Your task to perform on an android device: toggle improve location accuracy Image 0: 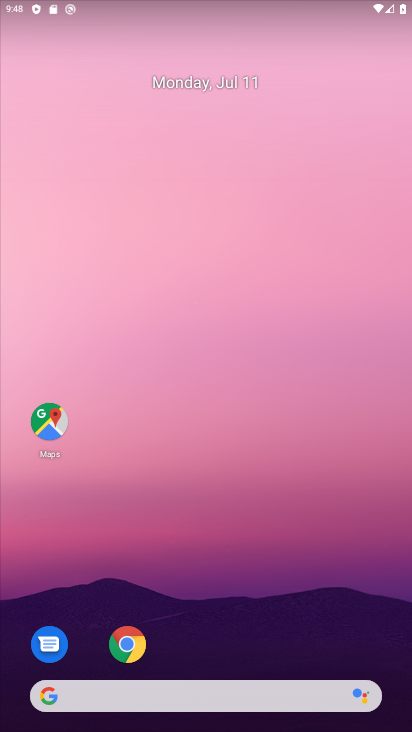
Step 0: drag from (269, 647) to (312, 94)
Your task to perform on an android device: toggle improve location accuracy Image 1: 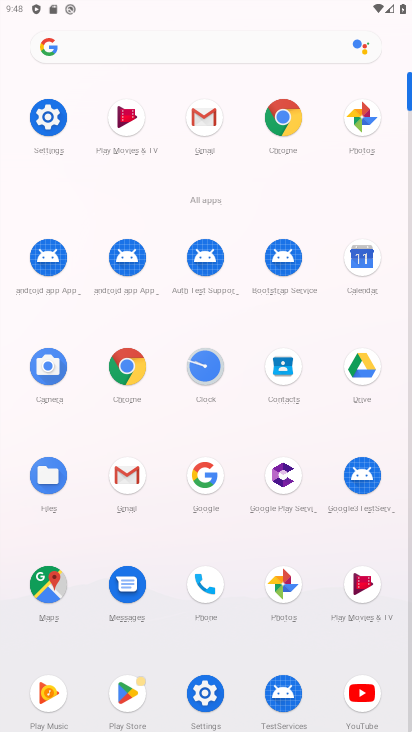
Step 1: click (45, 117)
Your task to perform on an android device: toggle improve location accuracy Image 2: 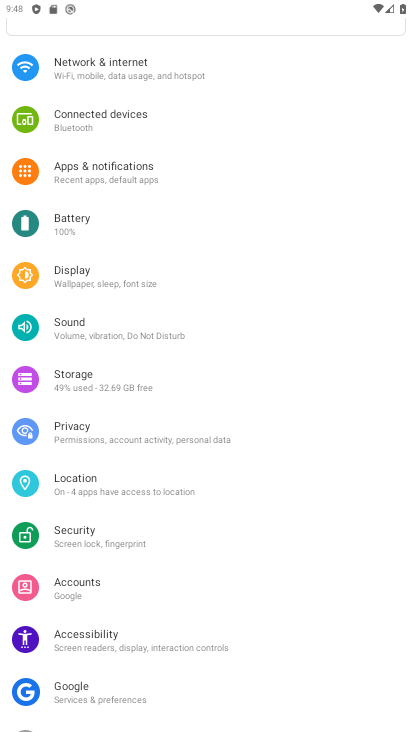
Step 2: click (101, 476)
Your task to perform on an android device: toggle improve location accuracy Image 3: 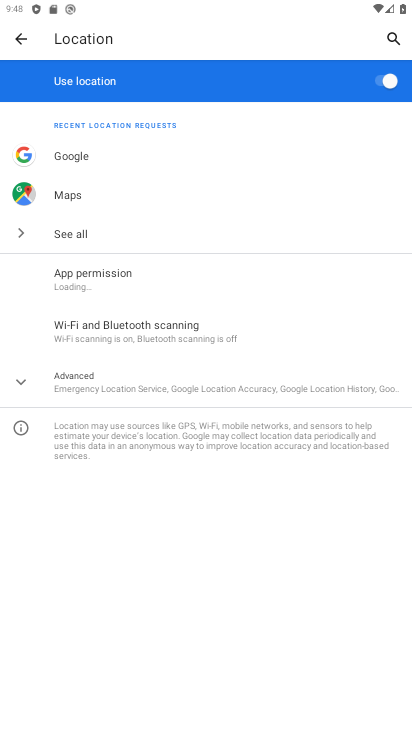
Step 3: click (144, 378)
Your task to perform on an android device: toggle improve location accuracy Image 4: 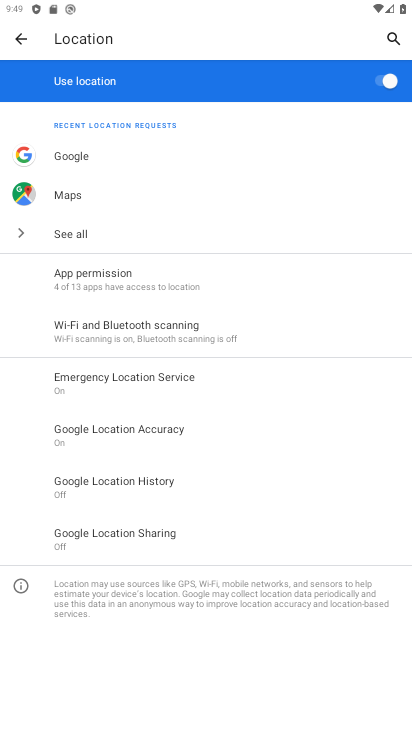
Step 4: click (152, 432)
Your task to perform on an android device: toggle improve location accuracy Image 5: 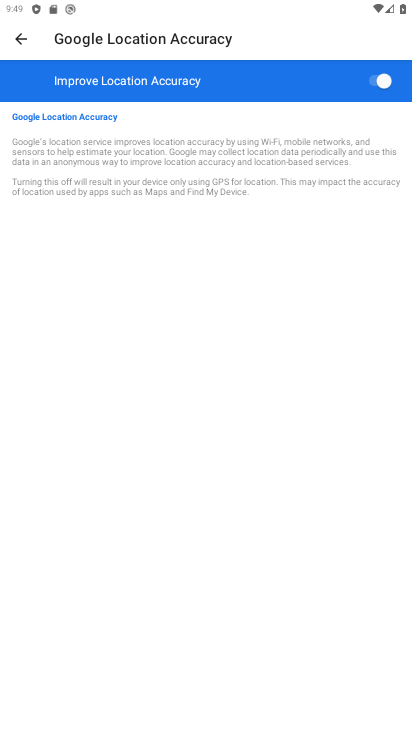
Step 5: click (379, 85)
Your task to perform on an android device: toggle improve location accuracy Image 6: 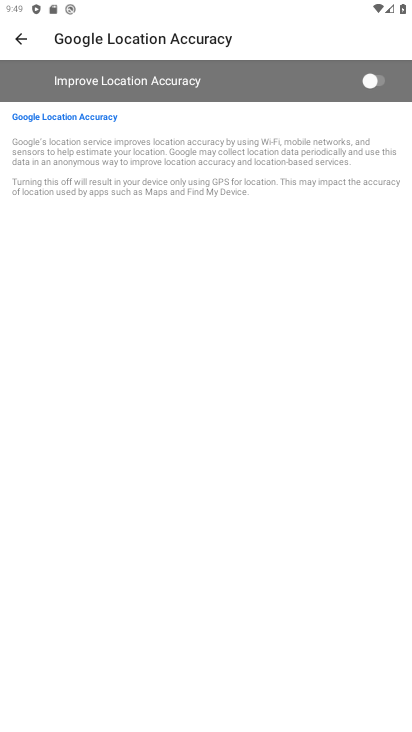
Step 6: task complete